Your task to perform on an android device: View the shopping cart on bestbuy. Add dell alienware to the cart on bestbuy, then select checkout. Image 0: 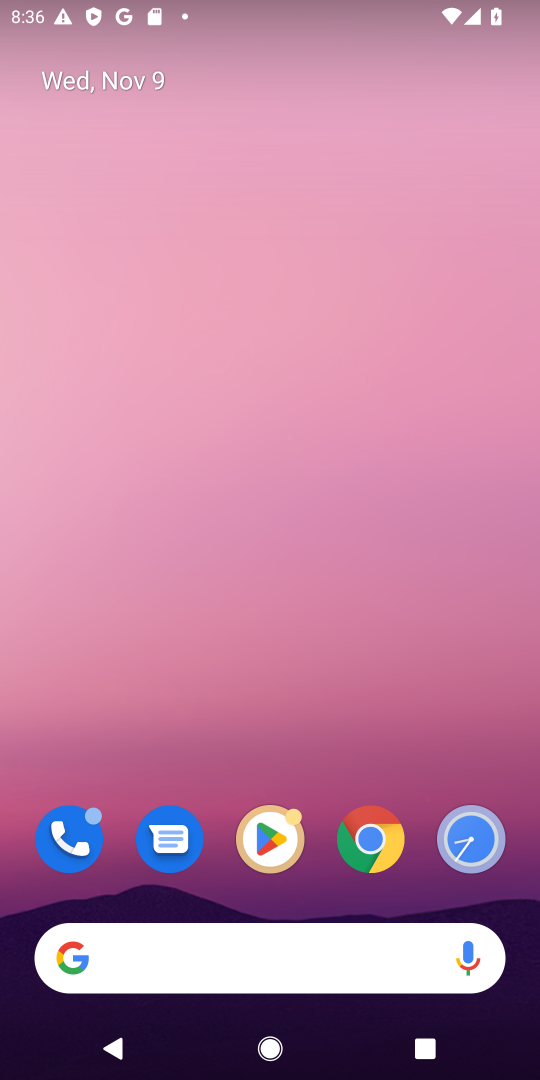
Step 0: drag from (264, 727) to (230, 65)
Your task to perform on an android device: View the shopping cart on bestbuy. Add dell alienware to the cart on bestbuy, then select checkout. Image 1: 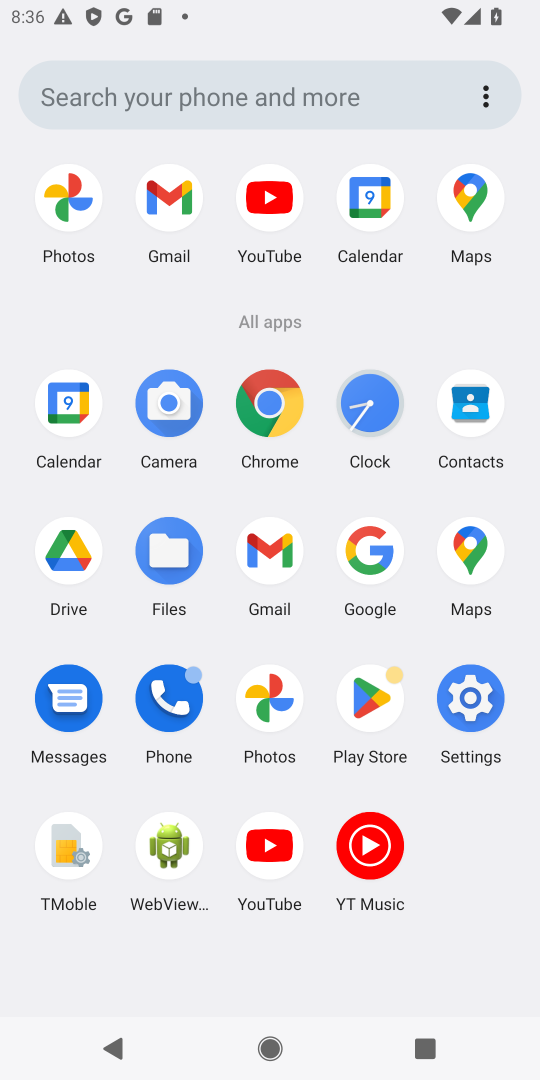
Step 1: click (269, 425)
Your task to perform on an android device: View the shopping cart on bestbuy. Add dell alienware to the cart on bestbuy, then select checkout. Image 2: 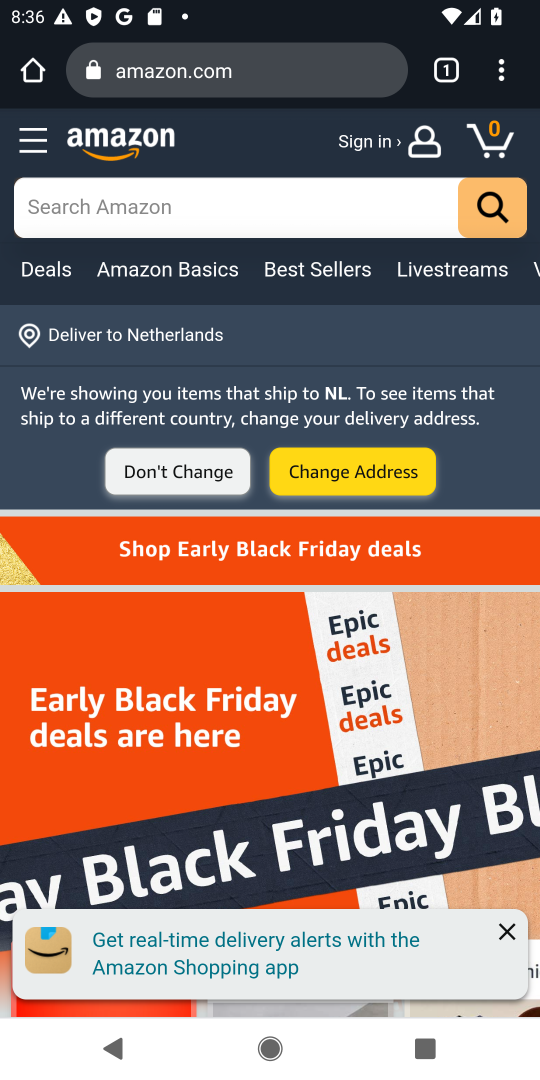
Step 2: click (288, 57)
Your task to perform on an android device: View the shopping cart on bestbuy. Add dell alienware to the cart on bestbuy, then select checkout. Image 3: 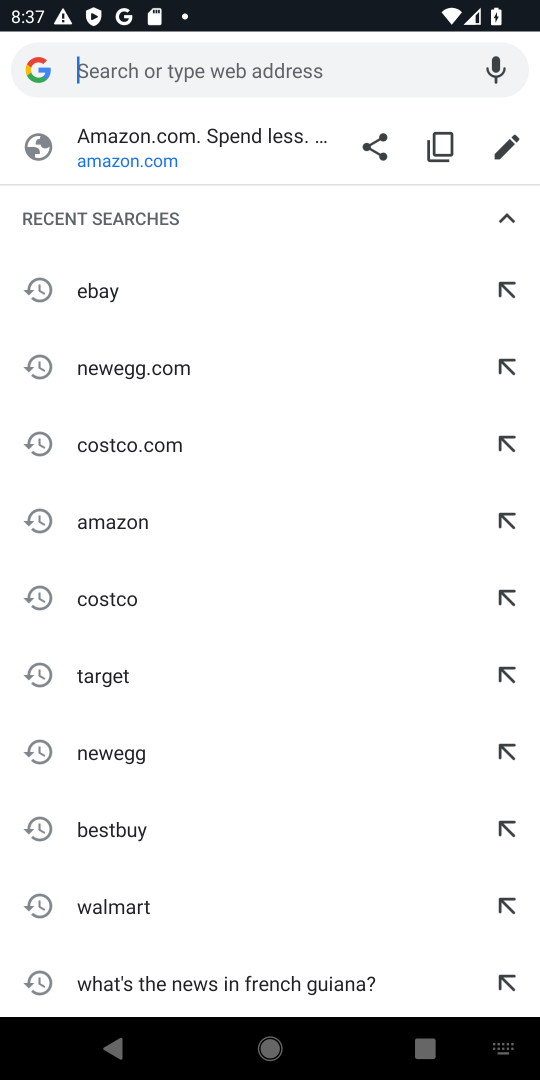
Step 3: type "bestbuy"
Your task to perform on an android device: View the shopping cart on bestbuy. Add dell alienware to the cart on bestbuy, then select checkout. Image 4: 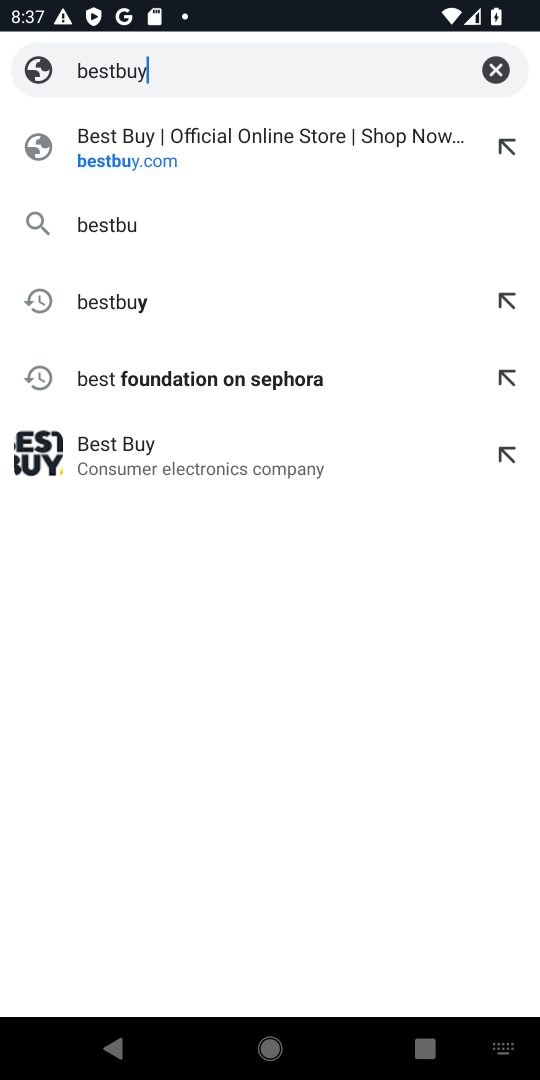
Step 4: press enter
Your task to perform on an android device: View the shopping cart on bestbuy. Add dell alienware to the cart on bestbuy, then select checkout. Image 5: 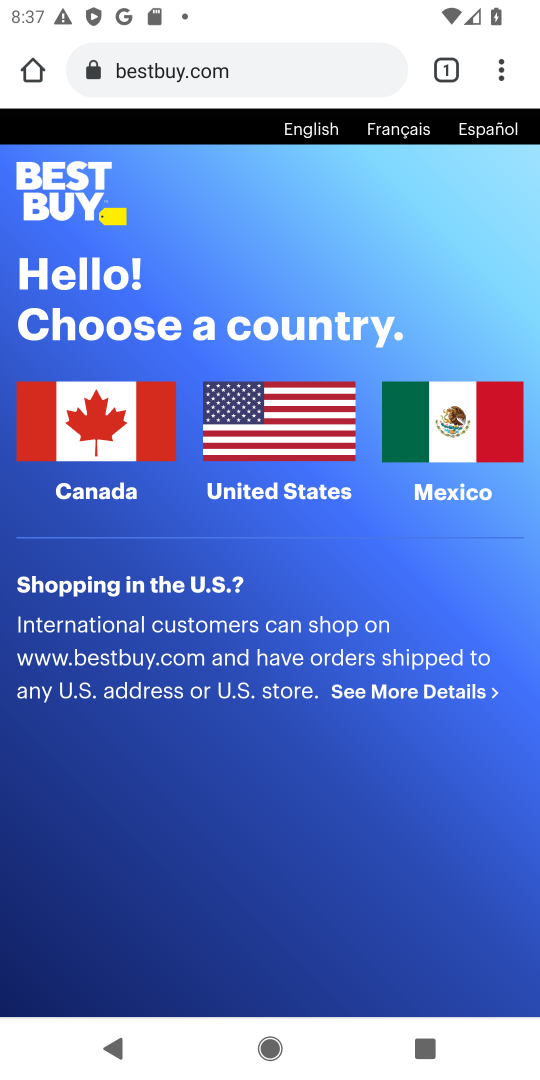
Step 5: click (91, 440)
Your task to perform on an android device: View the shopping cart on bestbuy. Add dell alienware to the cart on bestbuy, then select checkout. Image 6: 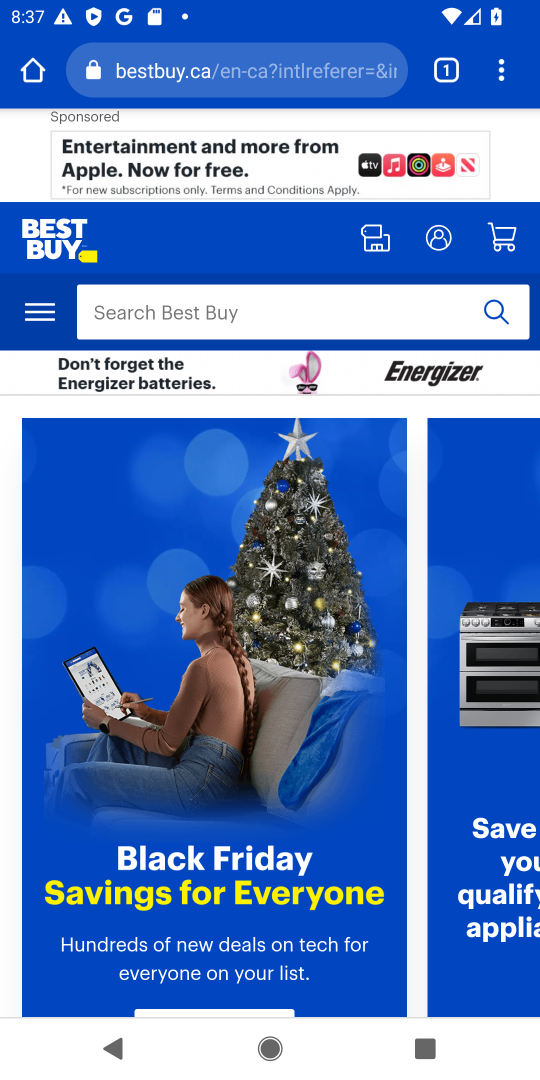
Step 6: click (167, 309)
Your task to perform on an android device: View the shopping cart on bestbuy. Add dell alienware to the cart on bestbuy, then select checkout. Image 7: 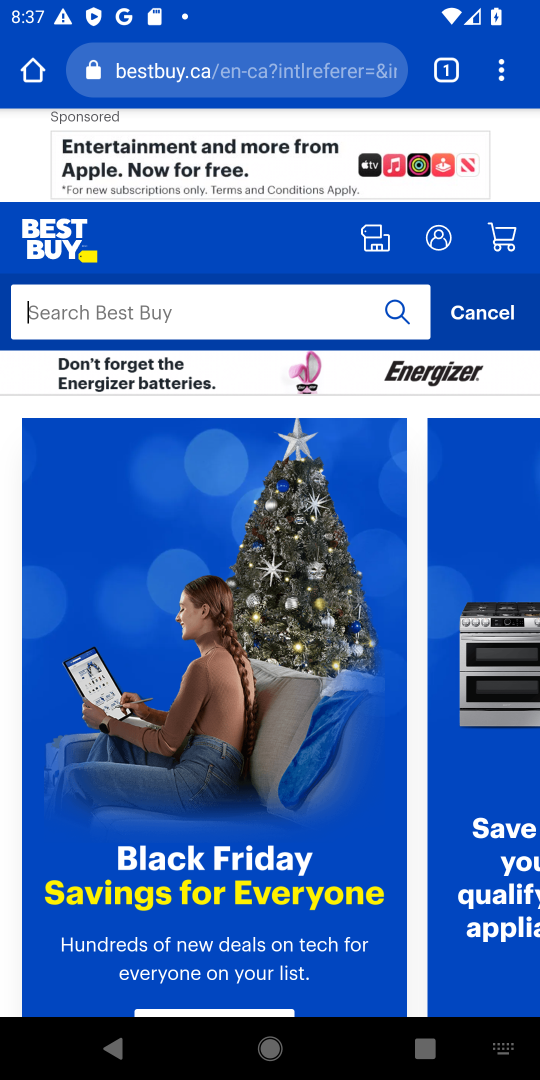
Step 7: type "dell alienware"
Your task to perform on an android device: View the shopping cart on bestbuy. Add dell alienware to the cart on bestbuy, then select checkout. Image 8: 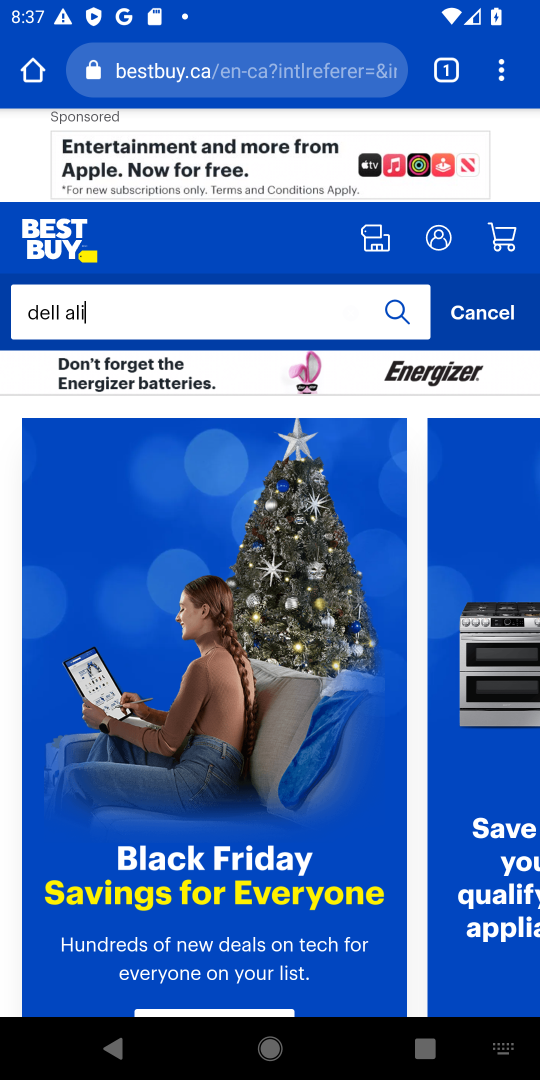
Step 8: press enter
Your task to perform on an android device: View the shopping cart on bestbuy. Add dell alienware to the cart on bestbuy, then select checkout. Image 9: 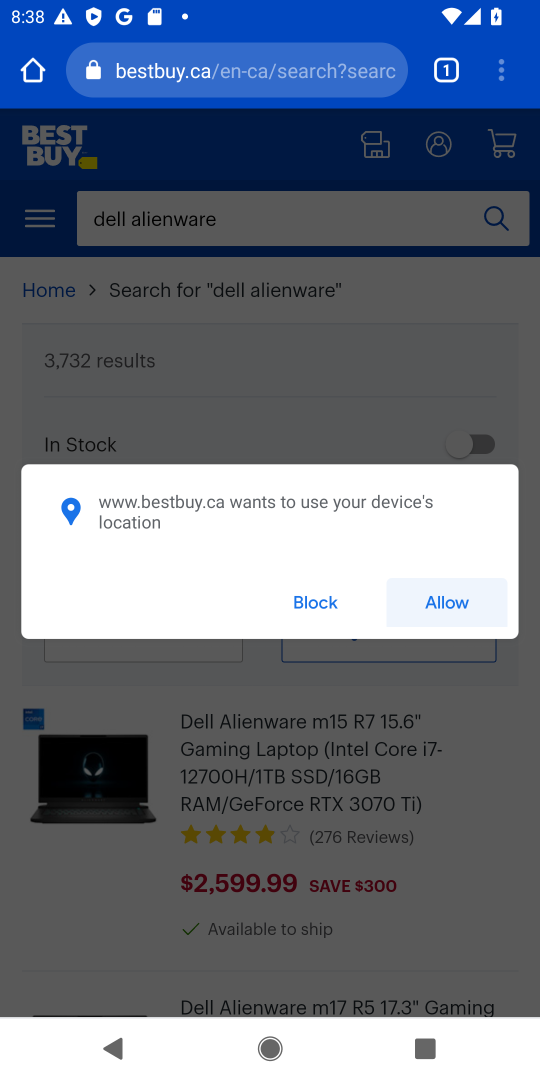
Step 9: click (454, 609)
Your task to perform on an android device: View the shopping cart on bestbuy. Add dell alienware to the cart on bestbuy, then select checkout. Image 10: 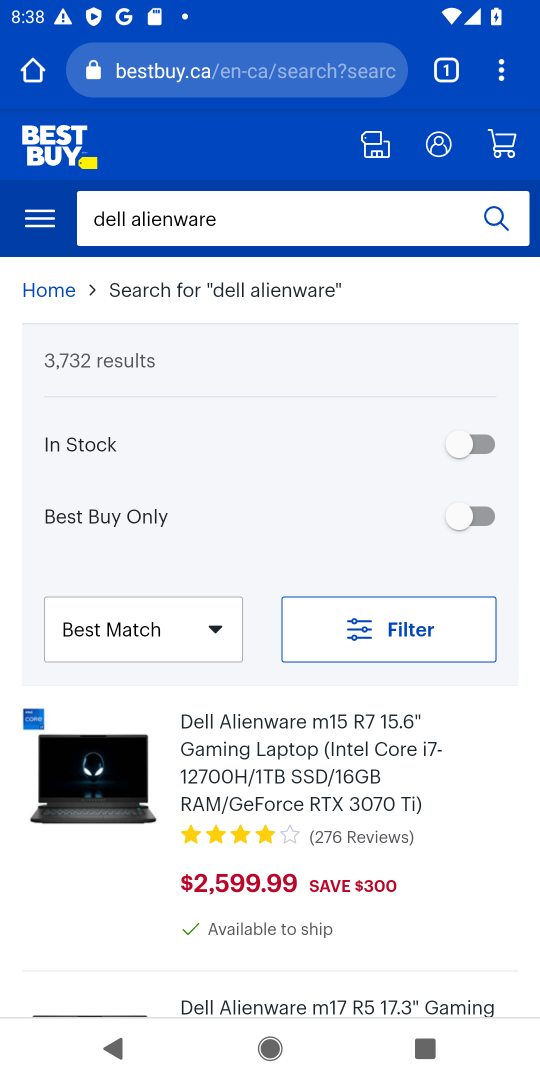
Step 10: drag from (272, 851) to (280, 477)
Your task to perform on an android device: View the shopping cart on bestbuy. Add dell alienware to the cart on bestbuy, then select checkout. Image 11: 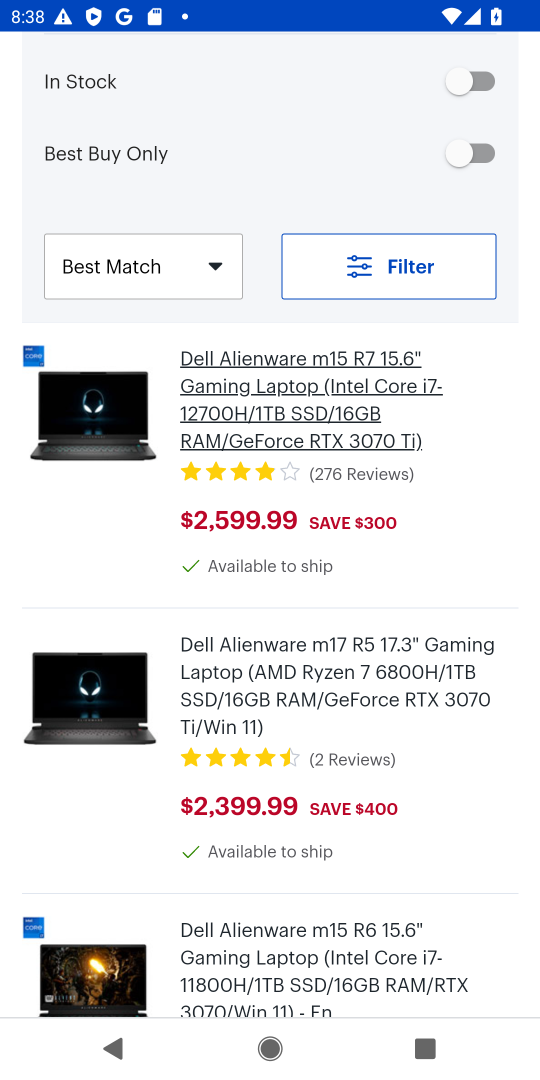
Step 11: click (279, 419)
Your task to perform on an android device: View the shopping cart on bestbuy. Add dell alienware to the cart on bestbuy, then select checkout. Image 12: 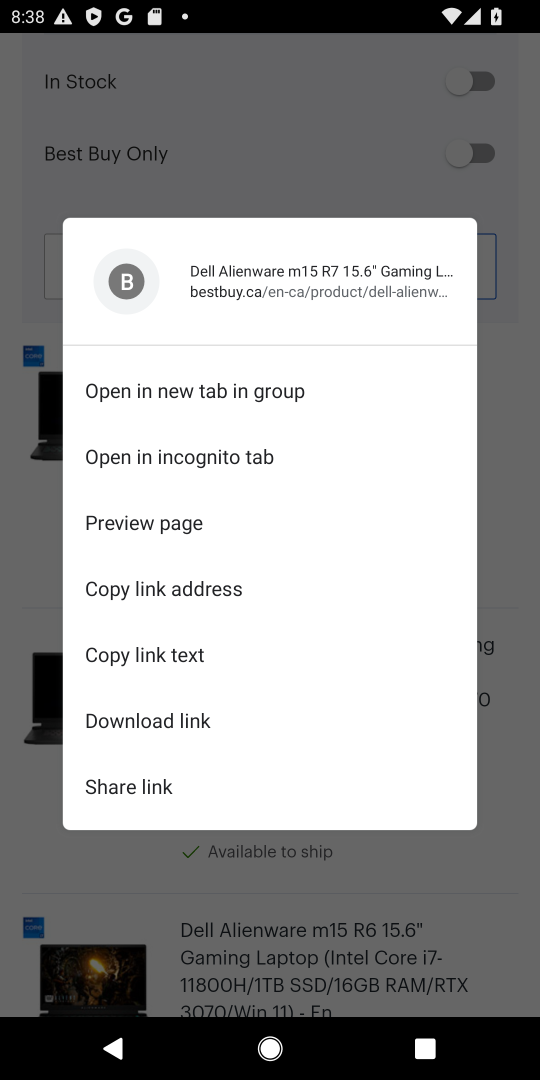
Step 12: click (236, 176)
Your task to perform on an android device: View the shopping cart on bestbuy. Add dell alienware to the cart on bestbuy, then select checkout. Image 13: 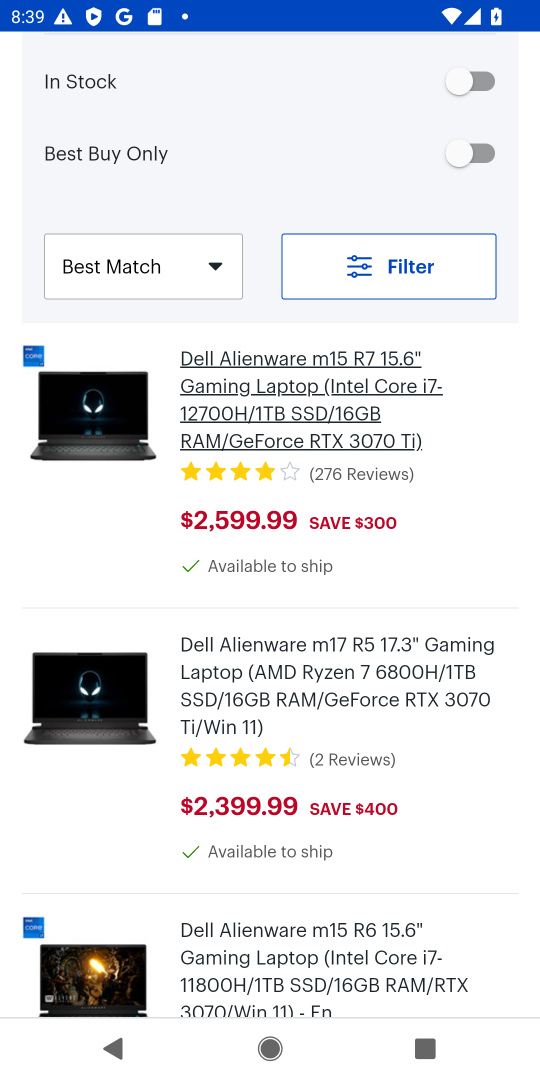
Step 13: click (130, 422)
Your task to perform on an android device: View the shopping cart on bestbuy. Add dell alienware to the cart on bestbuy, then select checkout. Image 14: 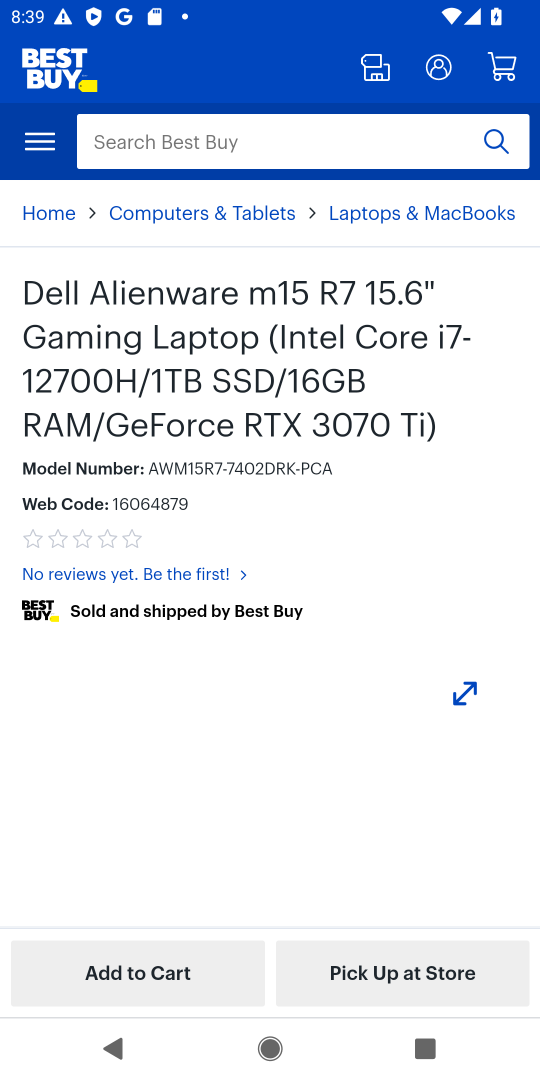
Step 14: drag from (288, 840) to (331, 353)
Your task to perform on an android device: View the shopping cart on bestbuy. Add dell alienware to the cart on bestbuy, then select checkout. Image 15: 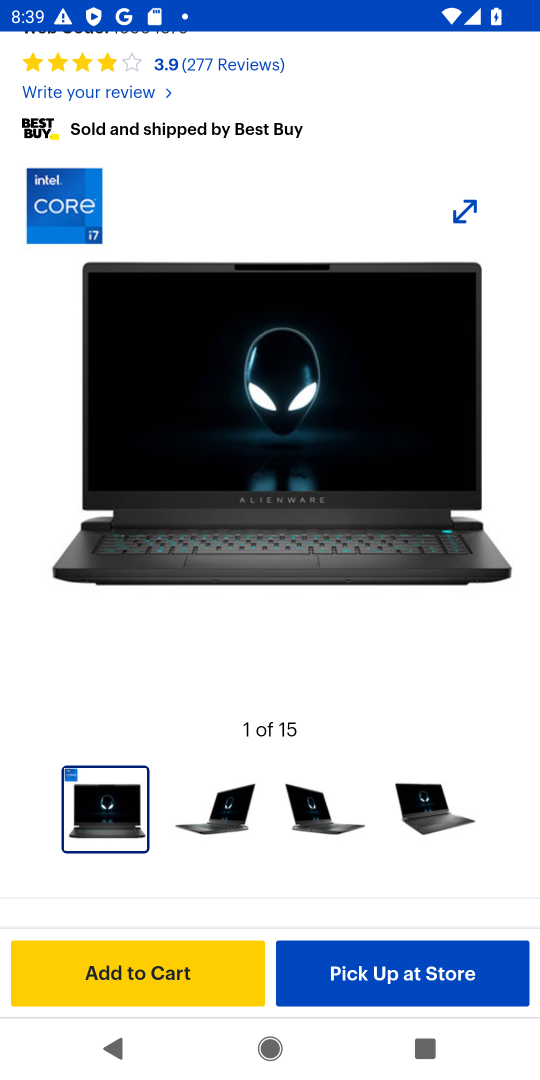
Step 15: drag from (312, 561) to (319, 309)
Your task to perform on an android device: View the shopping cart on bestbuy. Add dell alienware to the cart on bestbuy, then select checkout. Image 16: 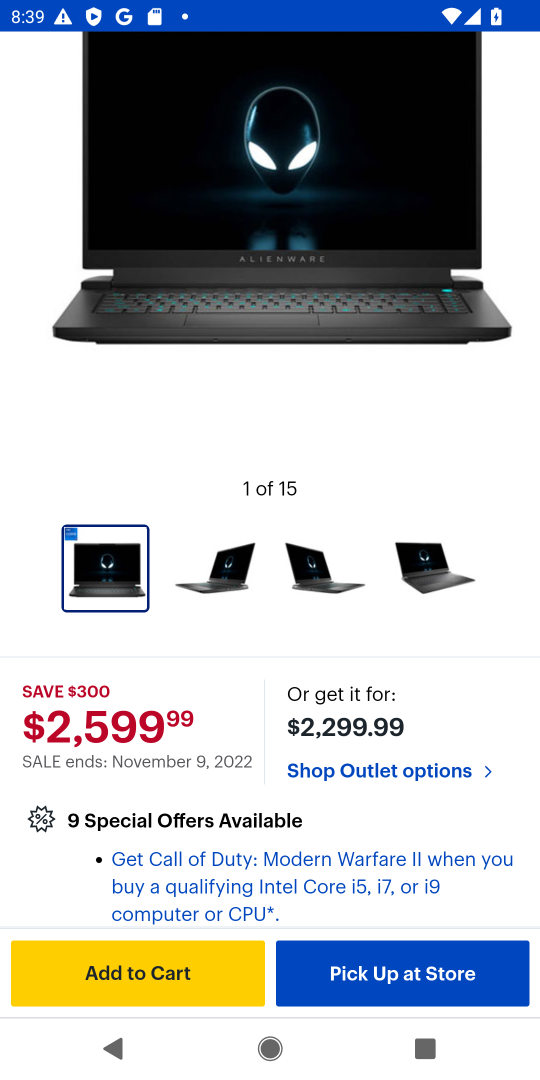
Step 16: click (133, 975)
Your task to perform on an android device: View the shopping cart on bestbuy. Add dell alienware to the cart on bestbuy, then select checkout. Image 17: 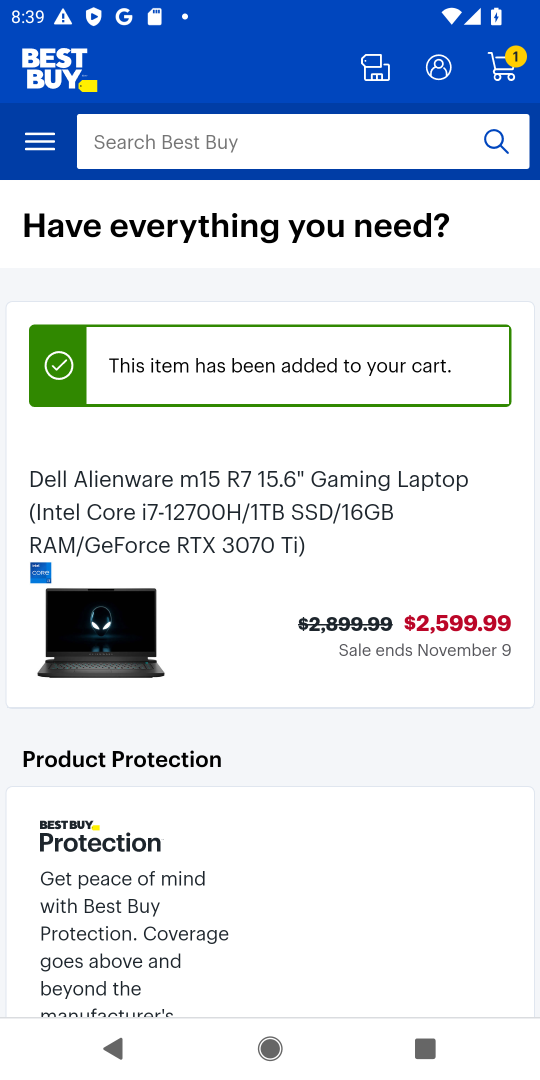
Step 17: click (499, 61)
Your task to perform on an android device: View the shopping cart on bestbuy. Add dell alienware to the cart on bestbuy, then select checkout. Image 18: 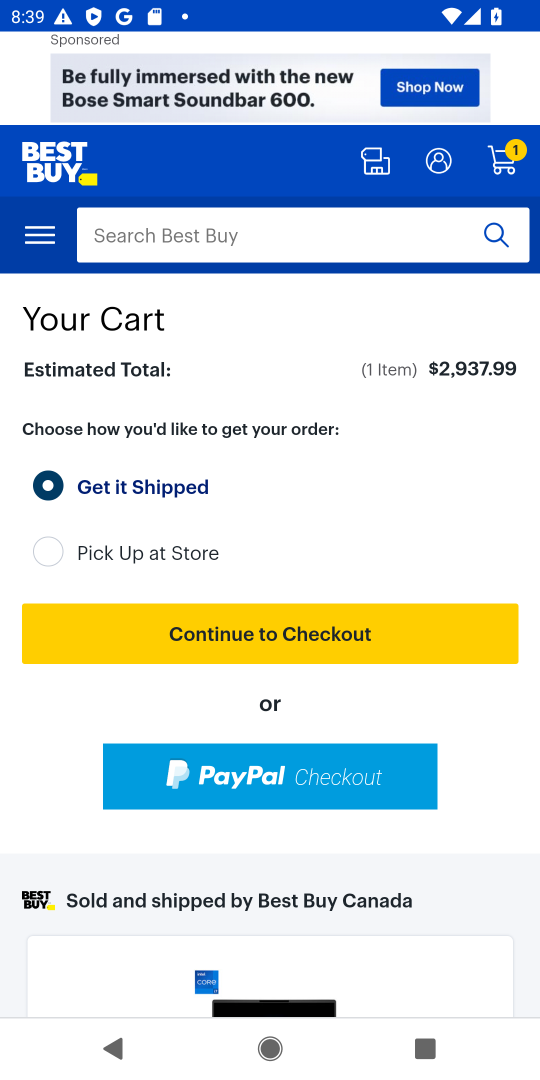
Step 18: click (263, 620)
Your task to perform on an android device: View the shopping cart on bestbuy. Add dell alienware to the cart on bestbuy, then select checkout. Image 19: 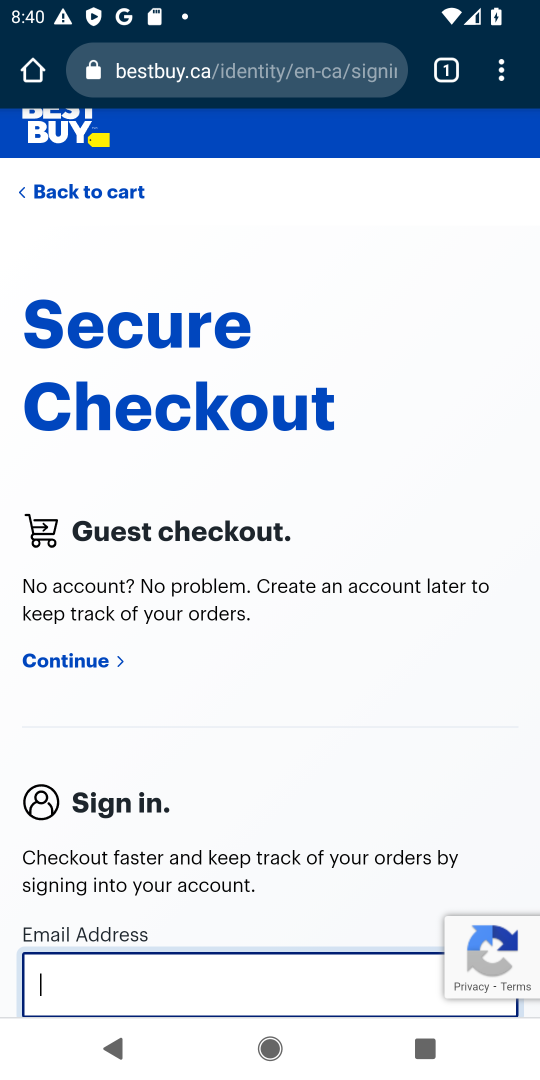
Step 19: task complete